Your task to perform on an android device: set the stopwatch Image 0: 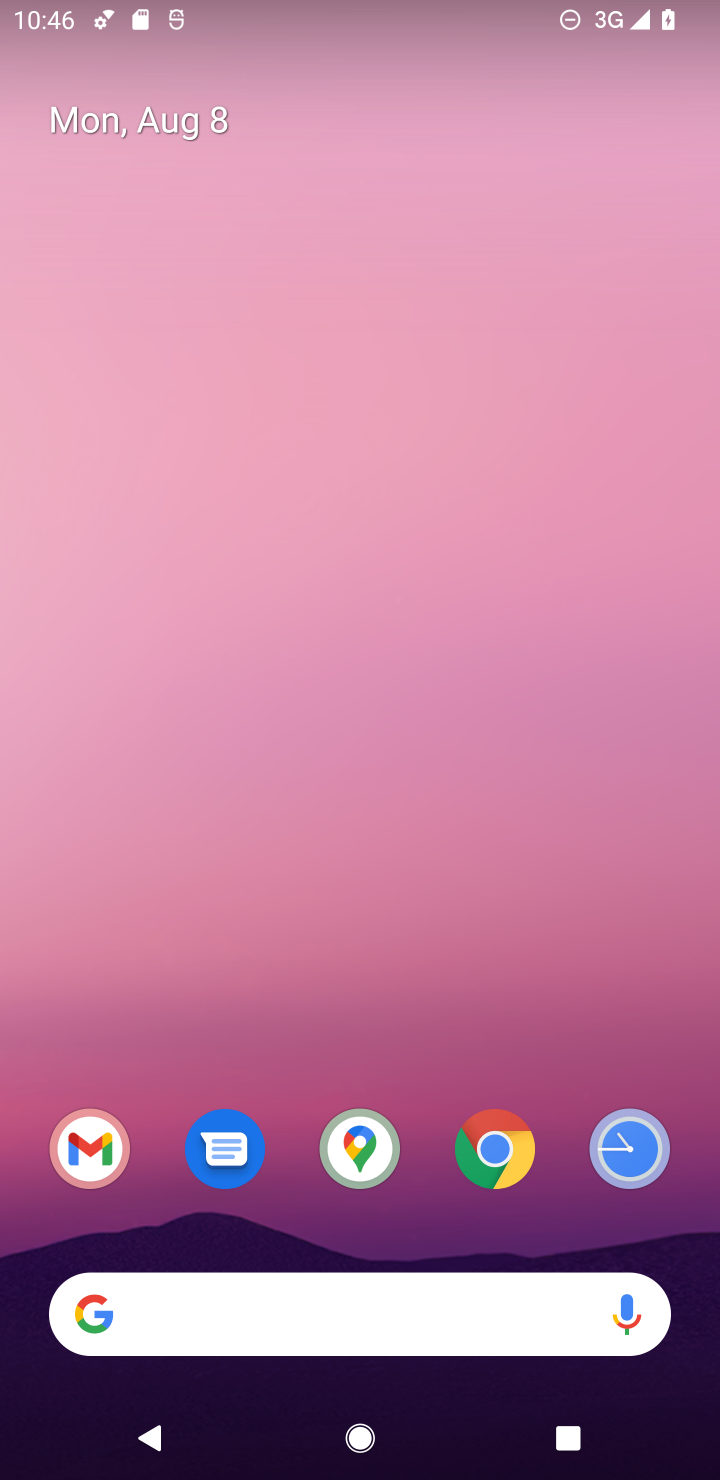
Step 0: click (646, 1164)
Your task to perform on an android device: set the stopwatch Image 1: 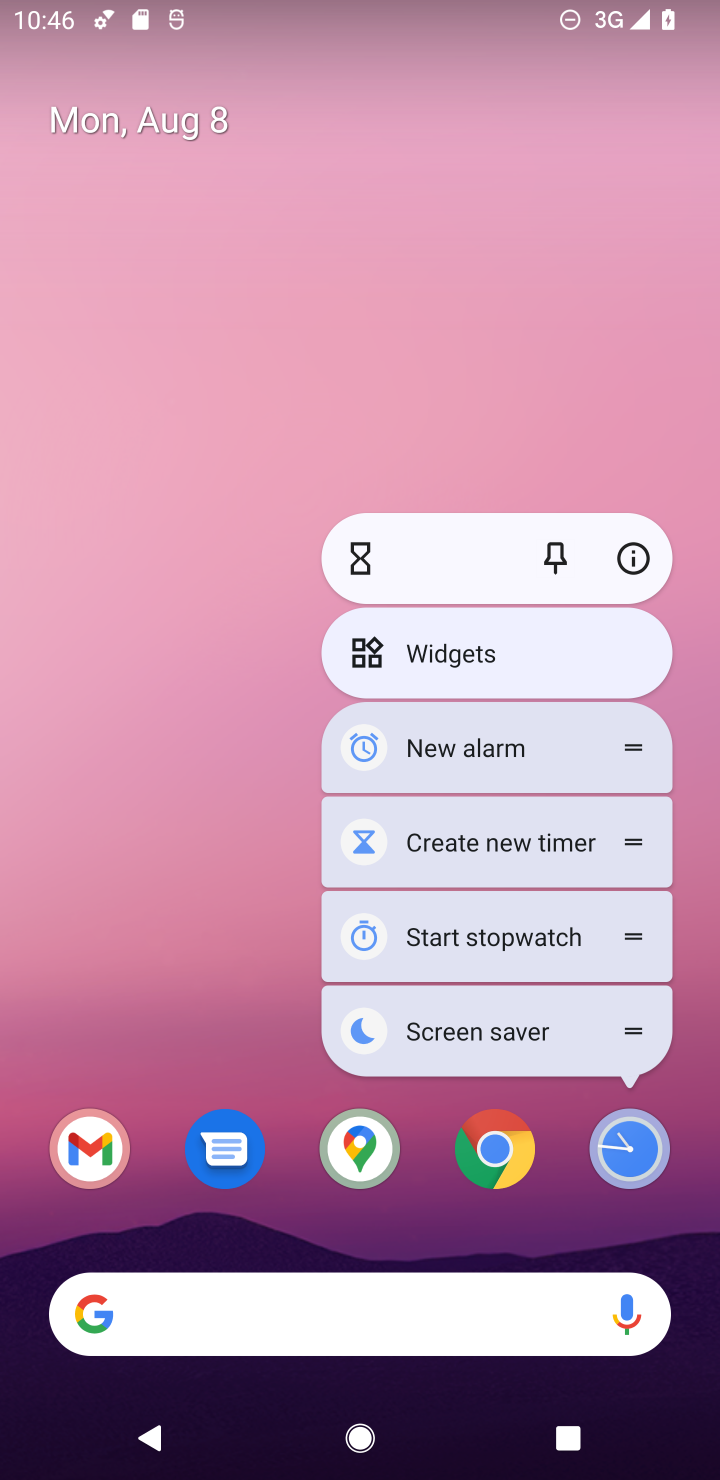
Step 1: click (632, 1124)
Your task to perform on an android device: set the stopwatch Image 2: 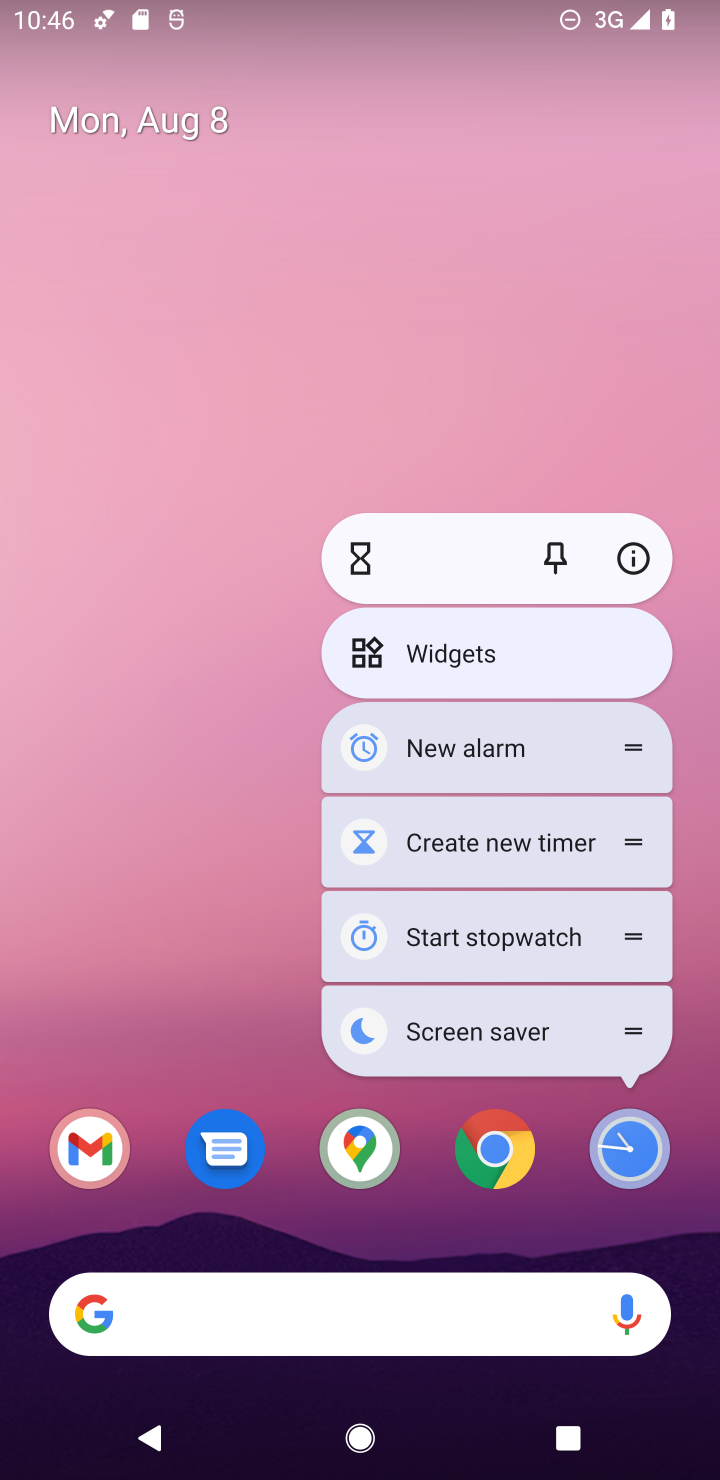
Step 2: click (629, 1163)
Your task to perform on an android device: set the stopwatch Image 3: 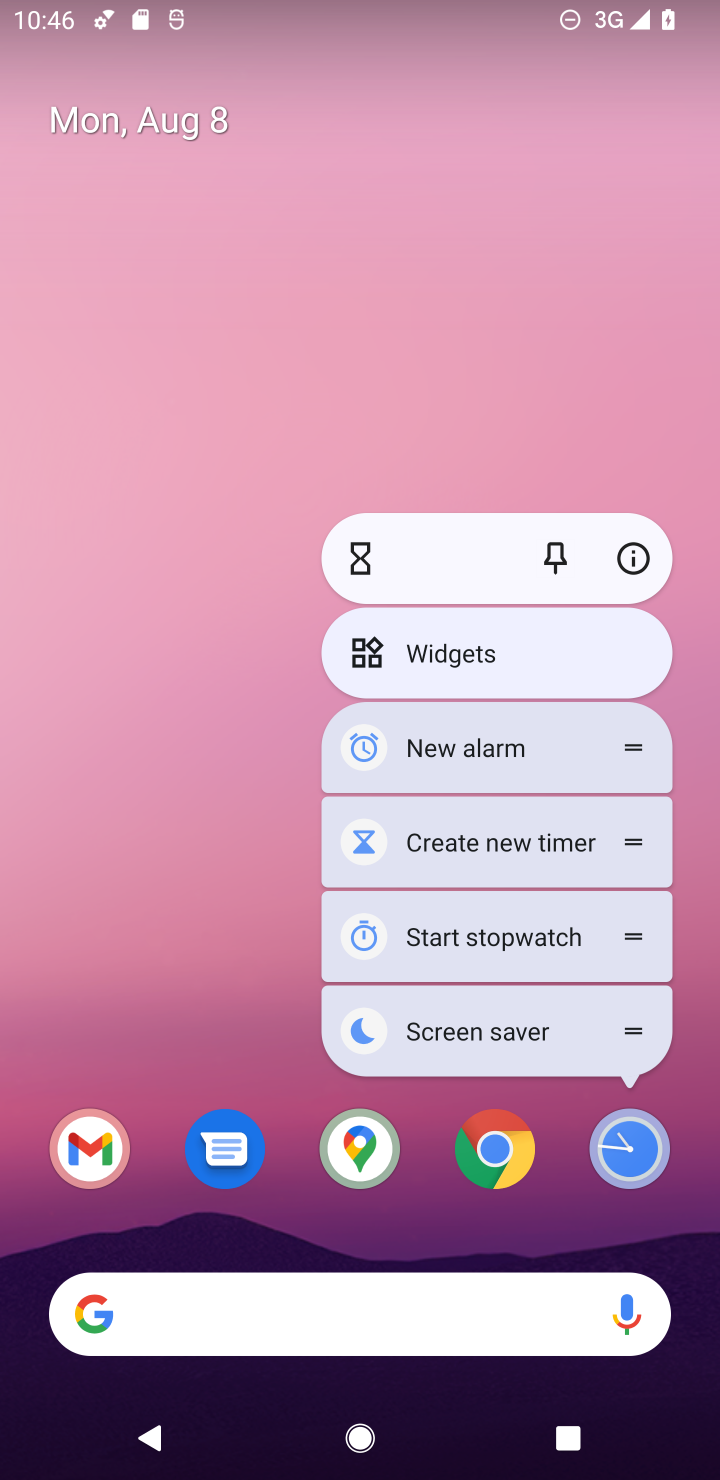
Step 3: click (640, 1169)
Your task to perform on an android device: set the stopwatch Image 4: 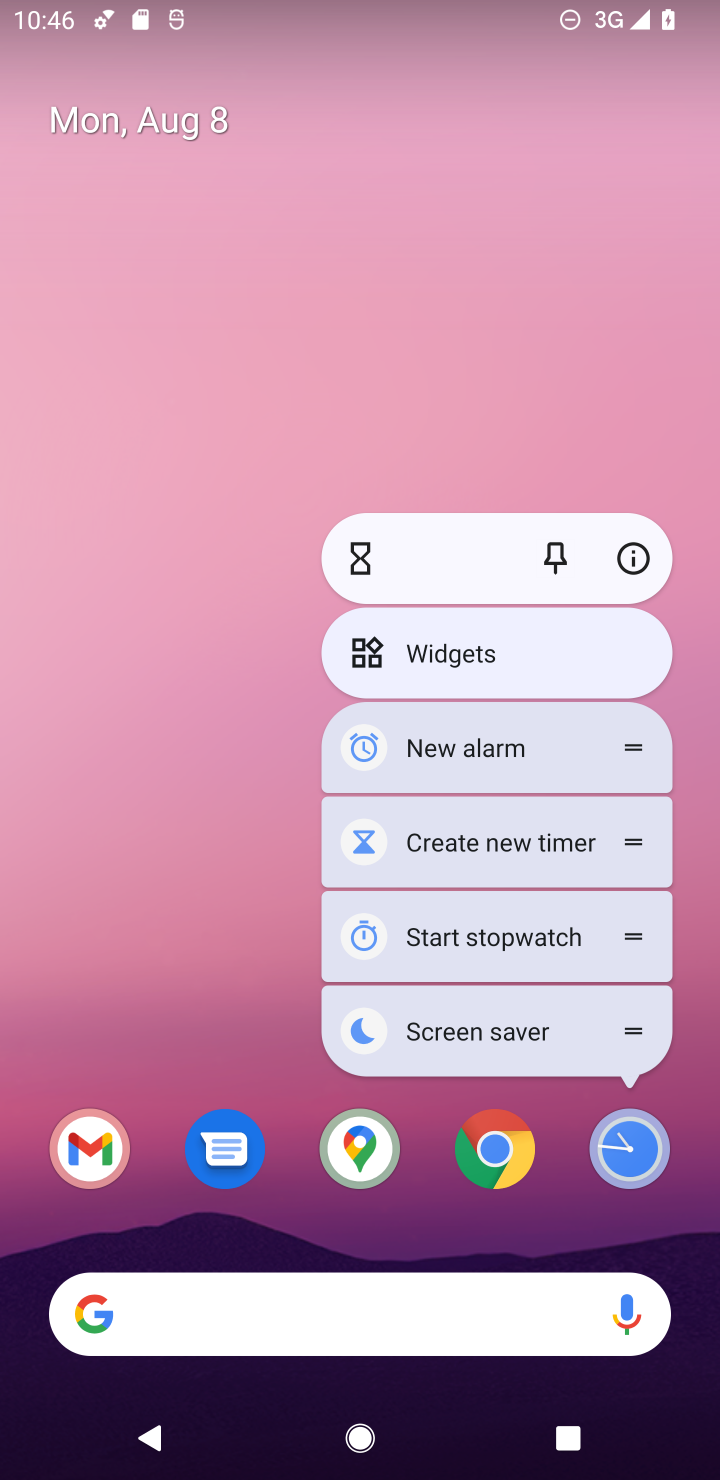
Step 4: click (641, 1144)
Your task to perform on an android device: set the stopwatch Image 5: 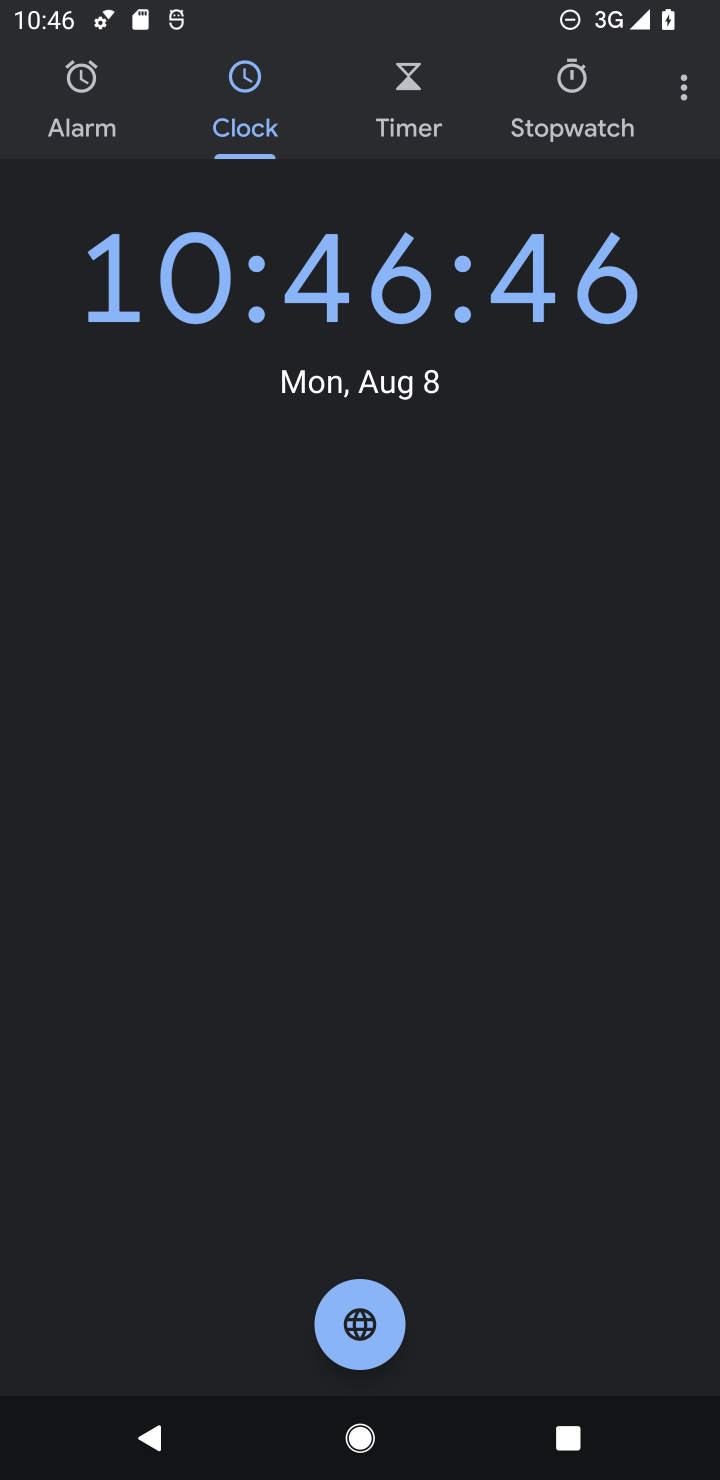
Step 5: click (690, 101)
Your task to perform on an android device: set the stopwatch Image 6: 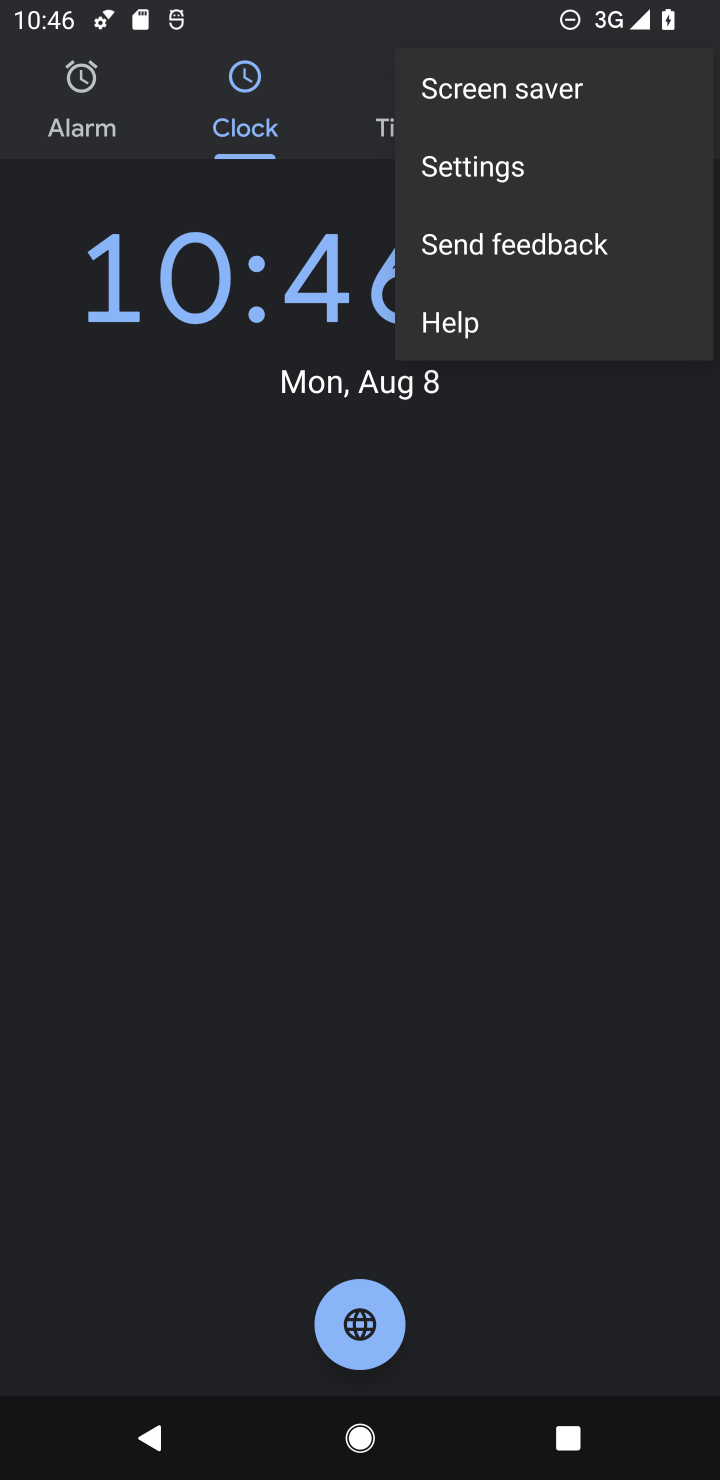
Step 6: click (472, 165)
Your task to perform on an android device: set the stopwatch Image 7: 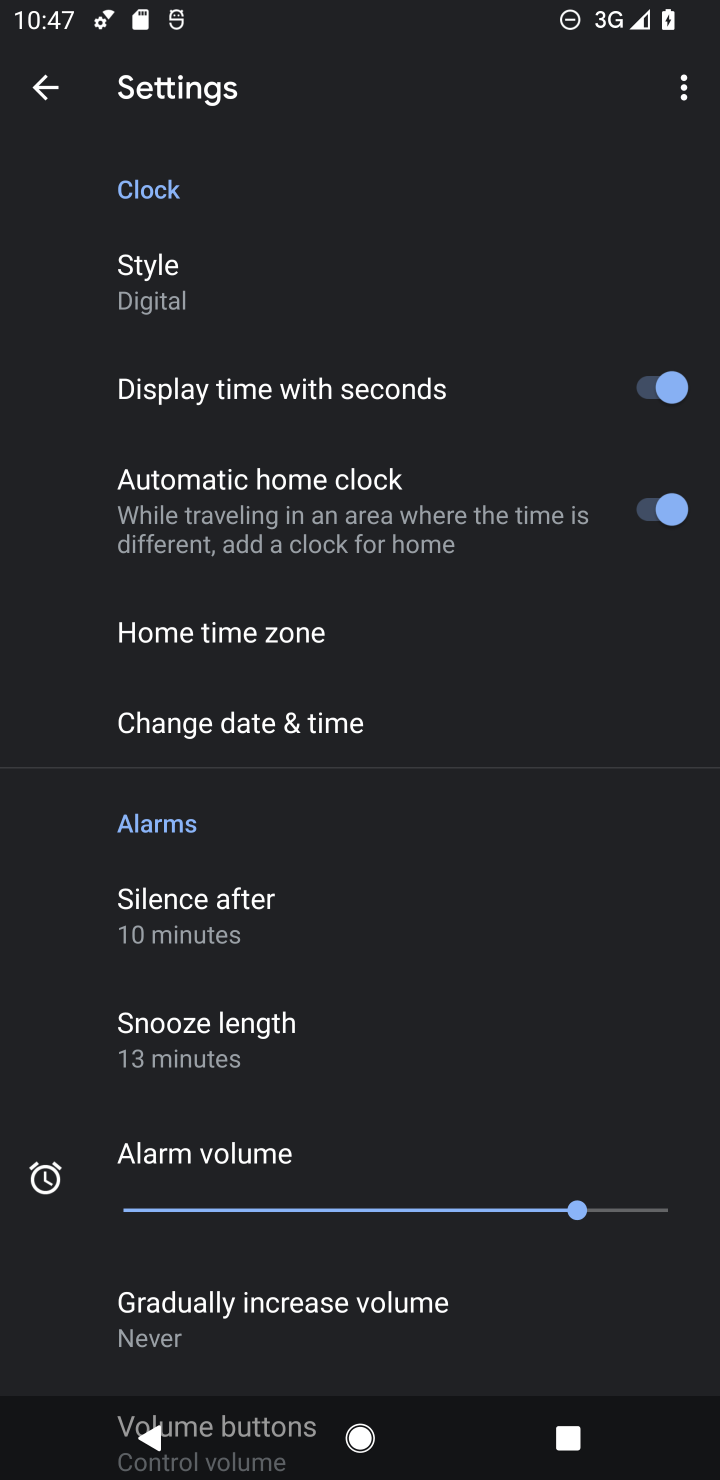
Step 7: click (60, 92)
Your task to perform on an android device: set the stopwatch Image 8: 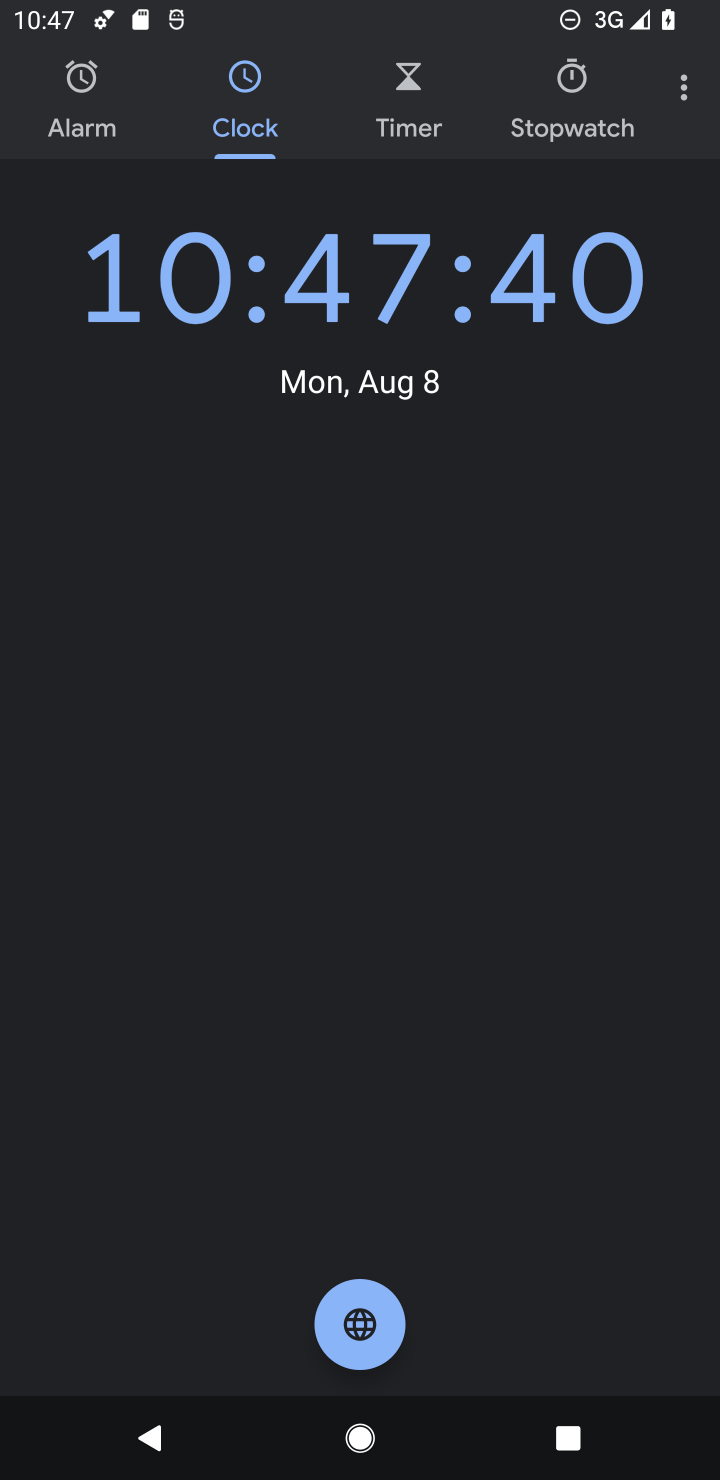
Step 8: click (566, 111)
Your task to perform on an android device: set the stopwatch Image 9: 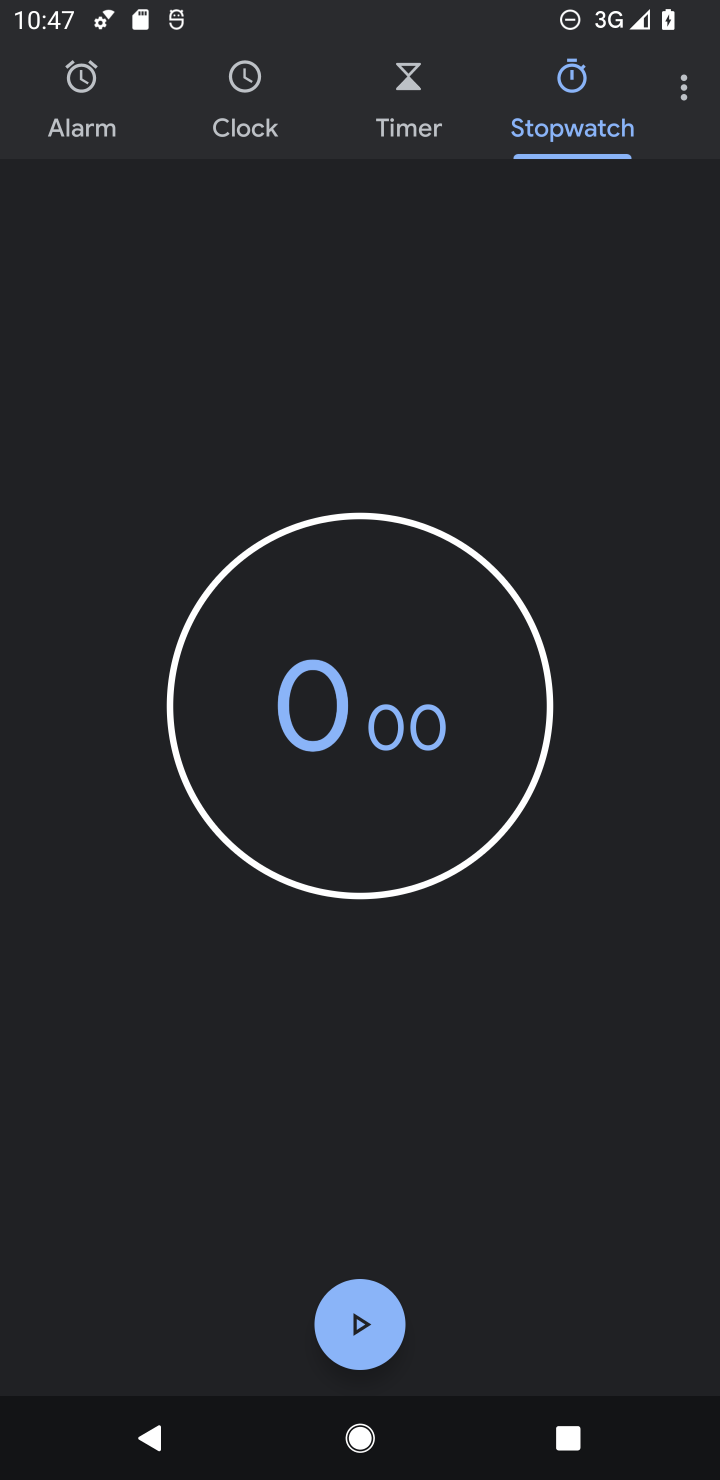
Step 9: click (358, 1328)
Your task to perform on an android device: set the stopwatch Image 10: 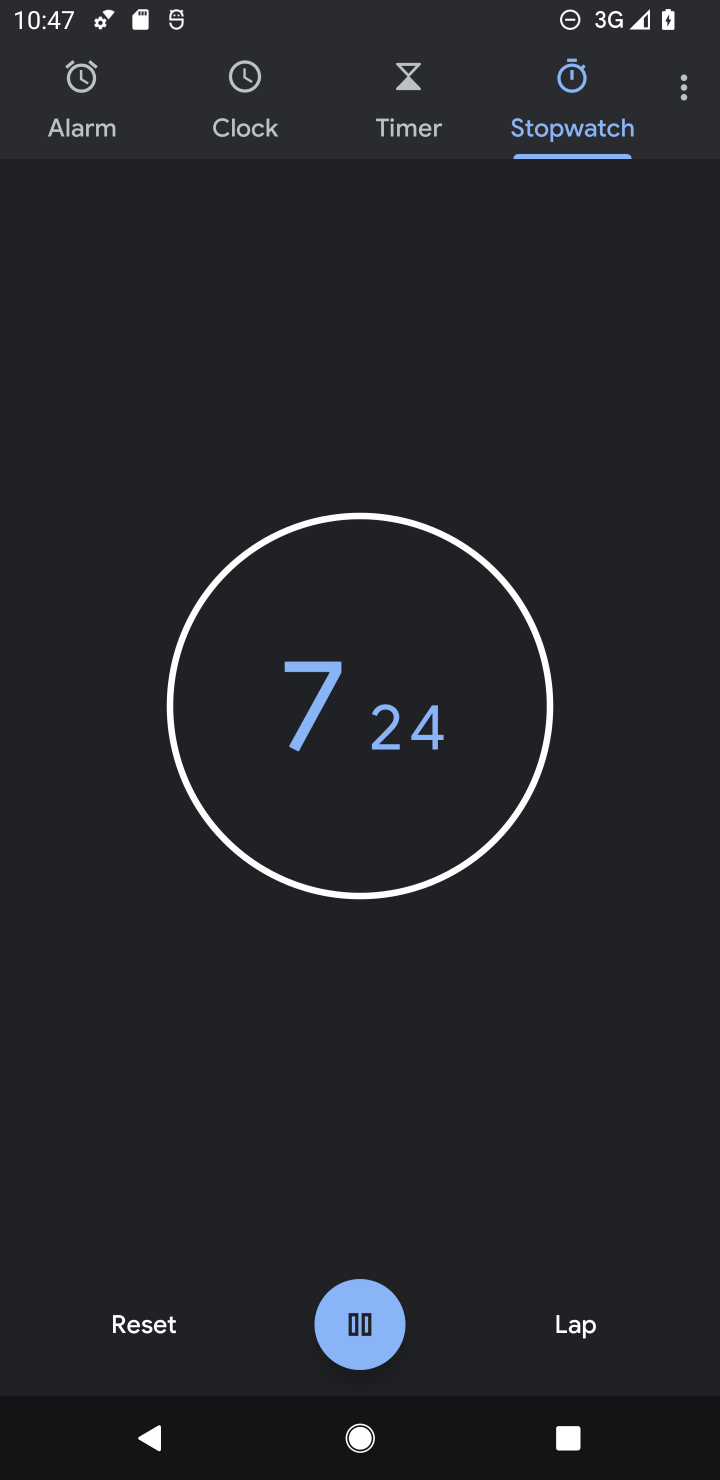
Step 10: task complete